Your task to perform on an android device: Go to privacy settings Image 0: 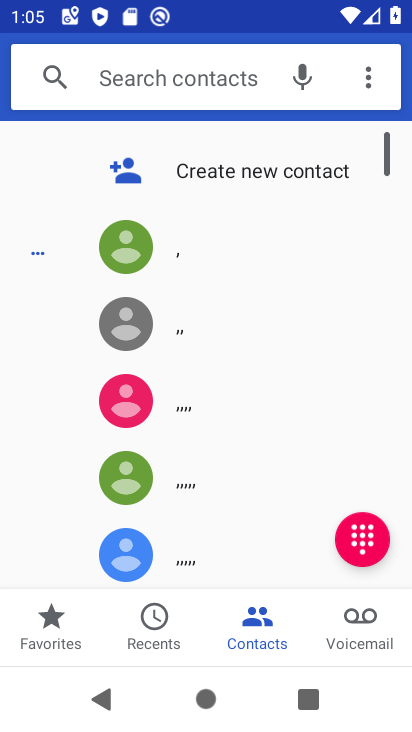
Step 0: press home button
Your task to perform on an android device: Go to privacy settings Image 1: 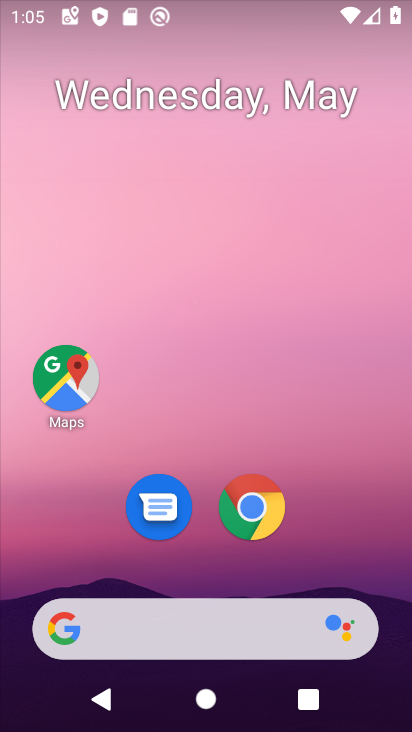
Step 1: drag from (215, 540) to (213, 120)
Your task to perform on an android device: Go to privacy settings Image 2: 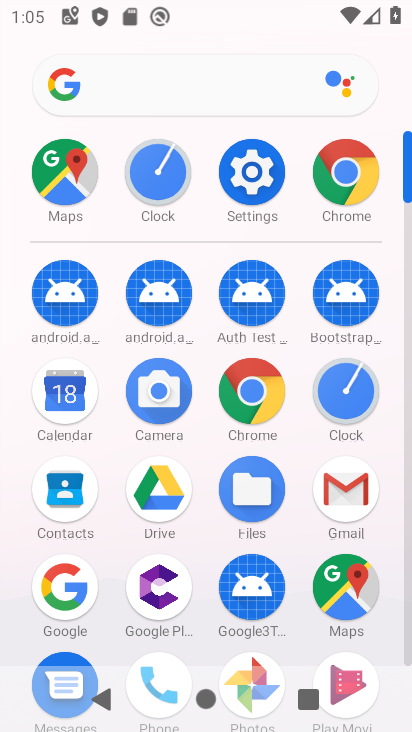
Step 2: click (239, 178)
Your task to perform on an android device: Go to privacy settings Image 3: 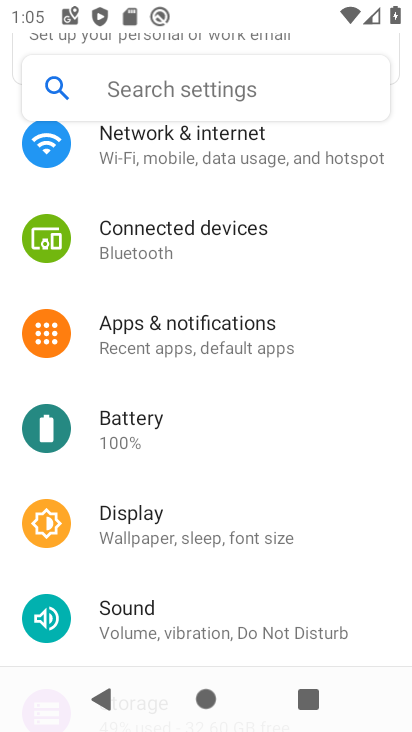
Step 3: drag from (229, 589) to (264, 202)
Your task to perform on an android device: Go to privacy settings Image 4: 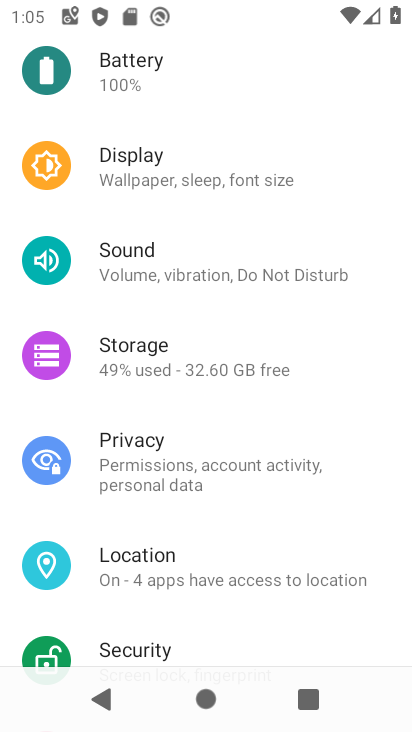
Step 4: click (181, 432)
Your task to perform on an android device: Go to privacy settings Image 5: 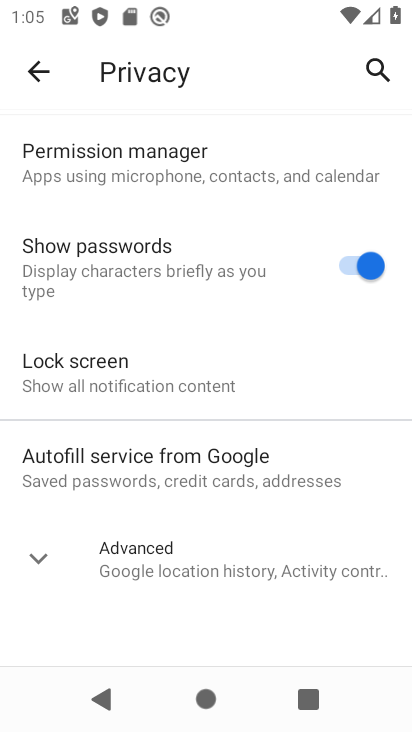
Step 5: task complete